Your task to perform on an android device: Search for sushi restaurants on Maps Image 0: 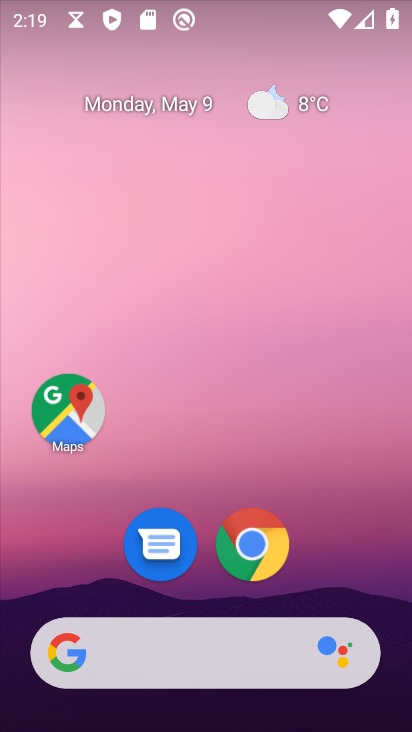
Step 0: click (87, 389)
Your task to perform on an android device: Search for sushi restaurants on Maps Image 1: 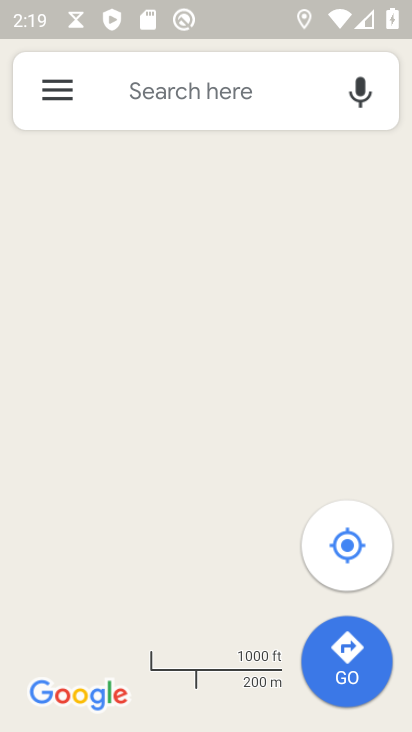
Step 1: click (204, 92)
Your task to perform on an android device: Search for sushi restaurants on Maps Image 2: 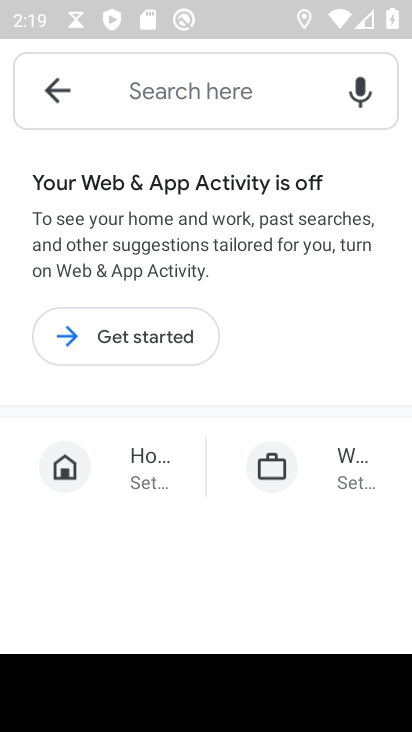
Step 2: click (171, 88)
Your task to perform on an android device: Search for sushi restaurants on Maps Image 3: 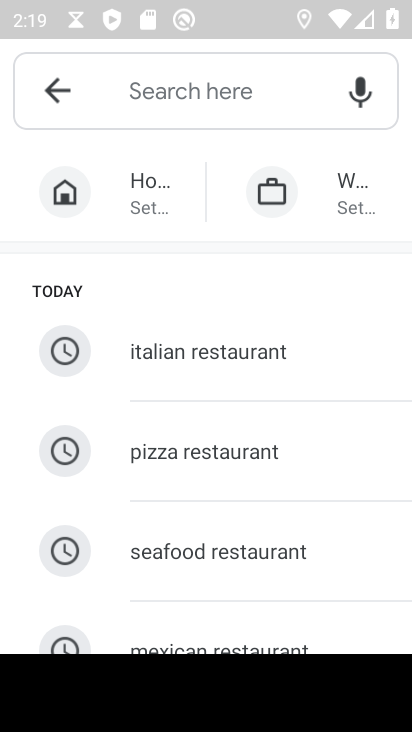
Step 3: drag from (202, 610) to (194, 280)
Your task to perform on an android device: Search for sushi restaurants on Maps Image 4: 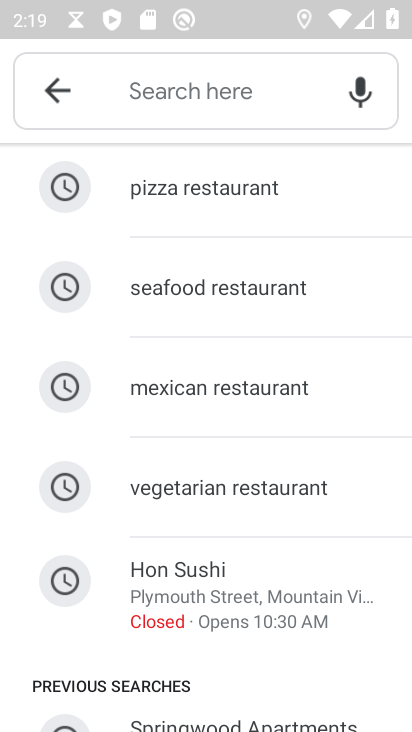
Step 4: type "sushi restaurants"
Your task to perform on an android device: Search for sushi restaurants on Maps Image 5: 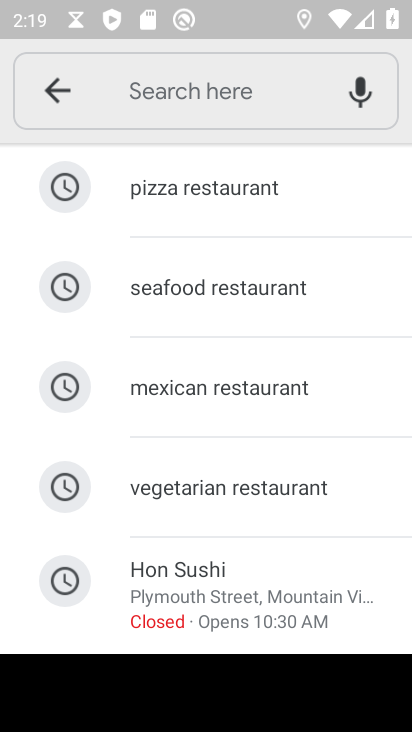
Step 5: click (206, 91)
Your task to perform on an android device: Search for sushi restaurants on Maps Image 6: 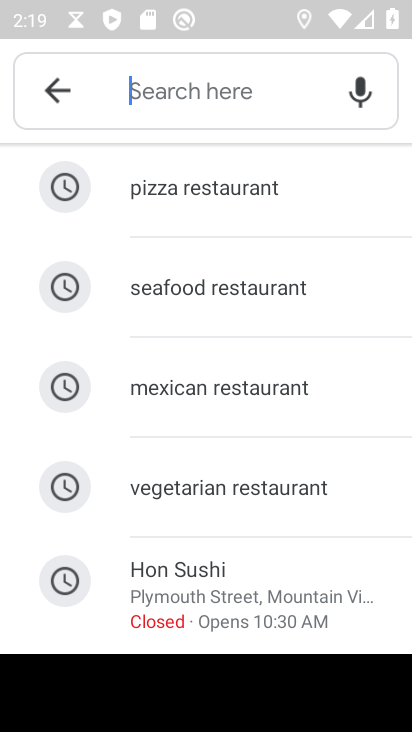
Step 6: type "sushi restaurants"
Your task to perform on an android device: Search for sushi restaurants on Maps Image 7: 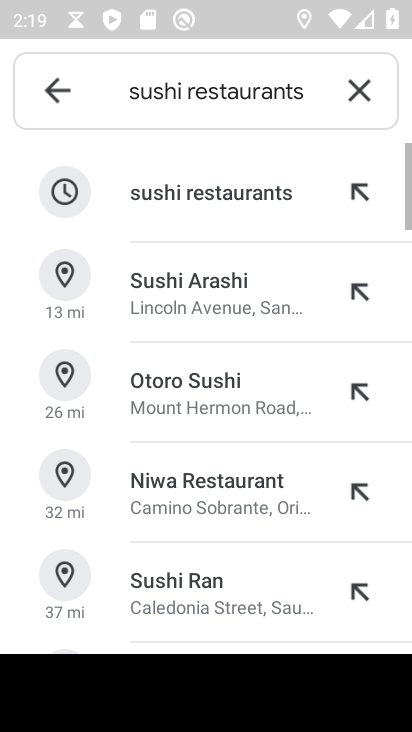
Step 7: click (186, 183)
Your task to perform on an android device: Search for sushi restaurants on Maps Image 8: 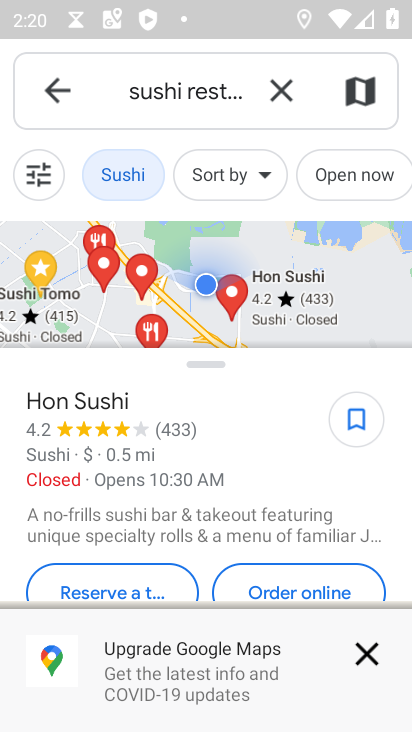
Step 8: task complete